Your task to perform on an android device: toggle sleep mode Image 0: 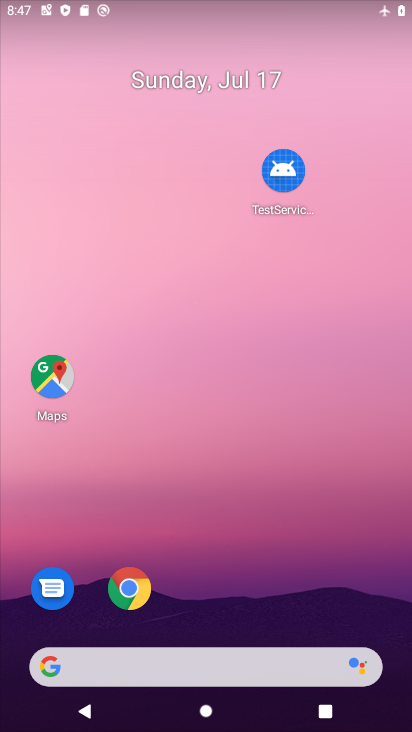
Step 0: drag from (219, 626) to (263, 139)
Your task to perform on an android device: toggle sleep mode Image 1: 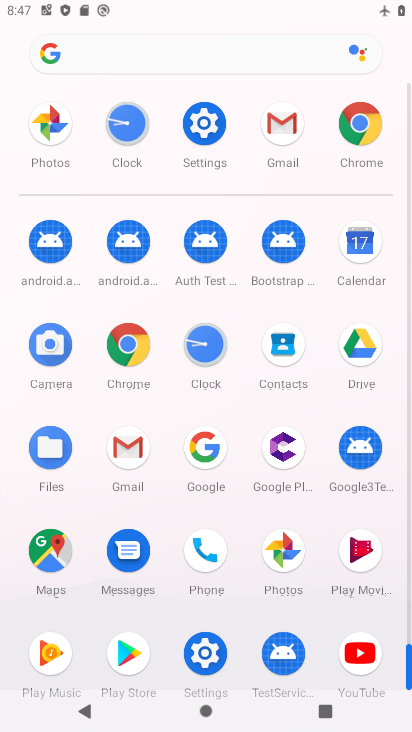
Step 1: click (212, 147)
Your task to perform on an android device: toggle sleep mode Image 2: 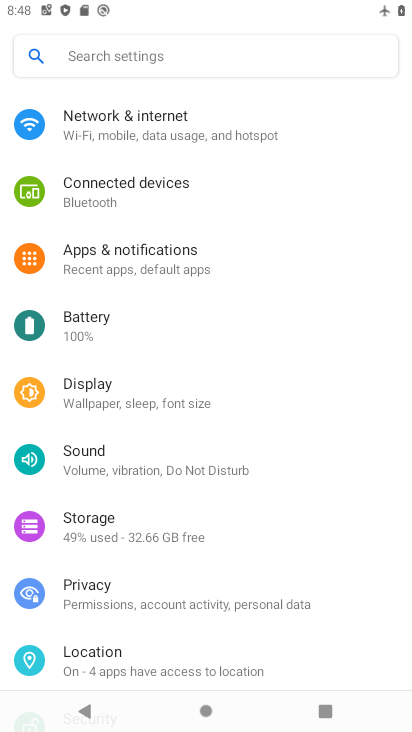
Step 2: click (107, 394)
Your task to perform on an android device: toggle sleep mode Image 3: 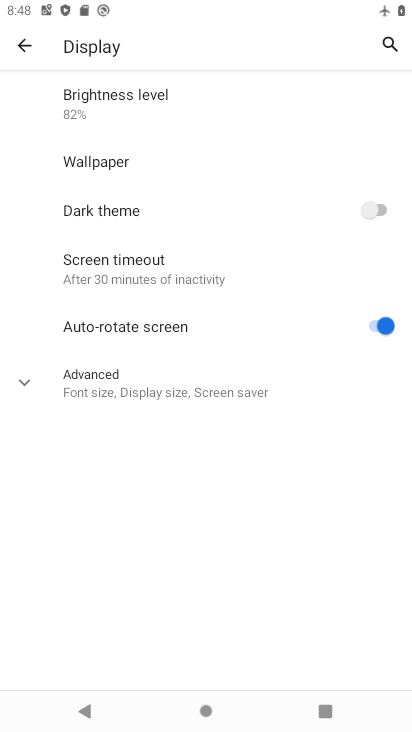
Step 3: click (179, 382)
Your task to perform on an android device: toggle sleep mode Image 4: 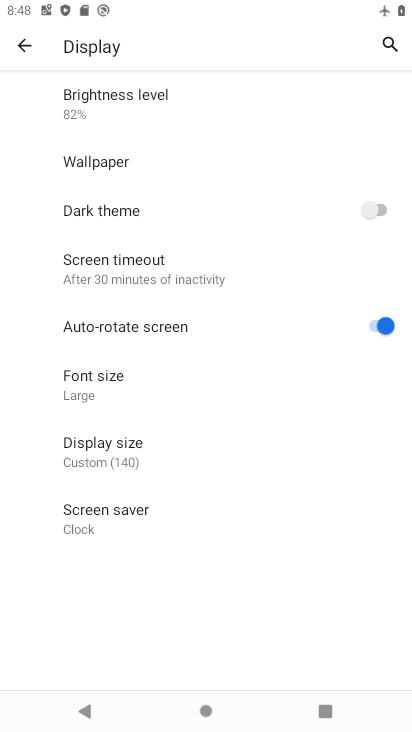
Step 4: task complete